Your task to perform on an android device: Open the calendar app, open the side menu, and click the "Day" option Image 0: 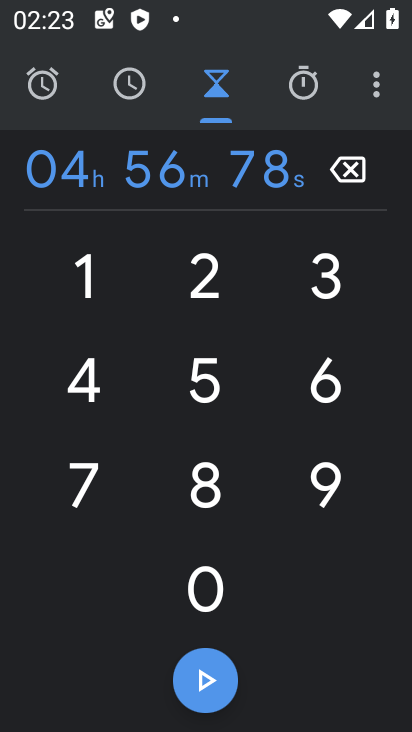
Step 0: press home button
Your task to perform on an android device: Open the calendar app, open the side menu, and click the "Day" option Image 1: 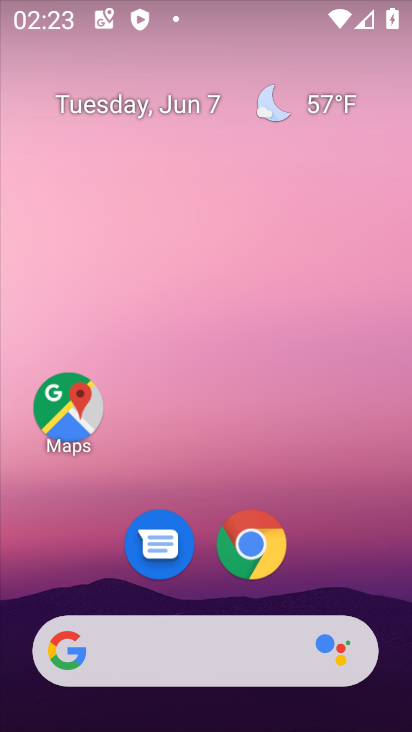
Step 1: drag from (159, 516) to (181, 208)
Your task to perform on an android device: Open the calendar app, open the side menu, and click the "Day" option Image 2: 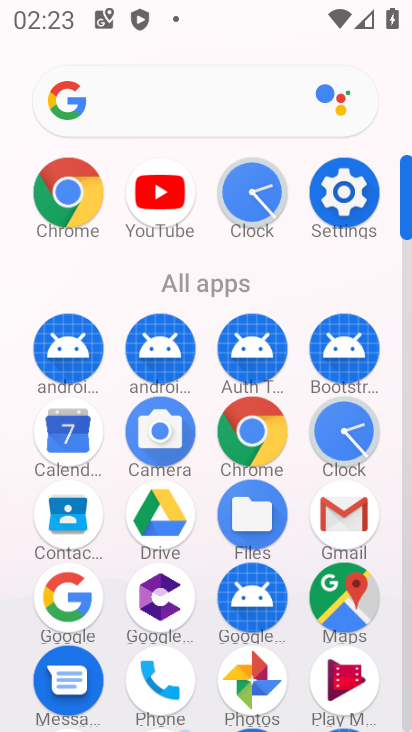
Step 2: click (57, 422)
Your task to perform on an android device: Open the calendar app, open the side menu, and click the "Day" option Image 3: 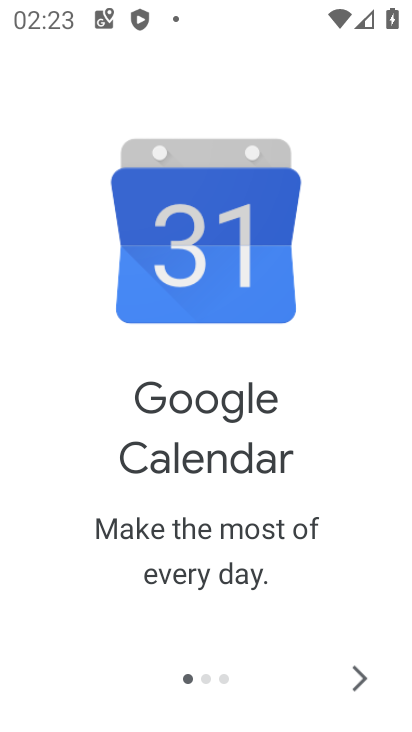
Step 3: click (347, 690)
Your task to perform on an android device: Open the calendar app, open the side menu, and click the "Day" option Image 4: 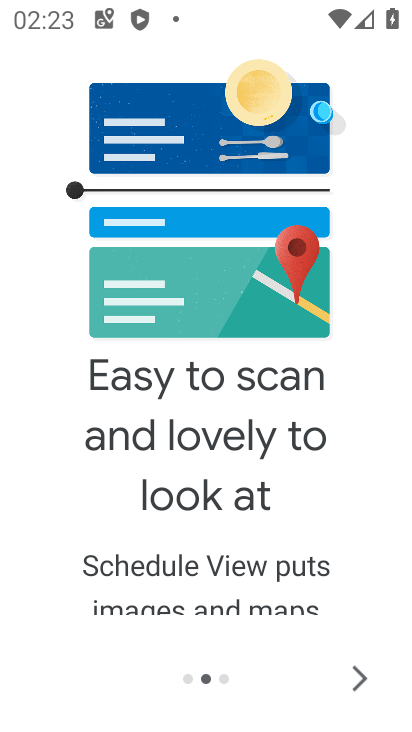
Step 4: click (347, 690)
Your task to perform on an android device: Open the calendar app, open the side menu, and click the "Day" option Image 5: 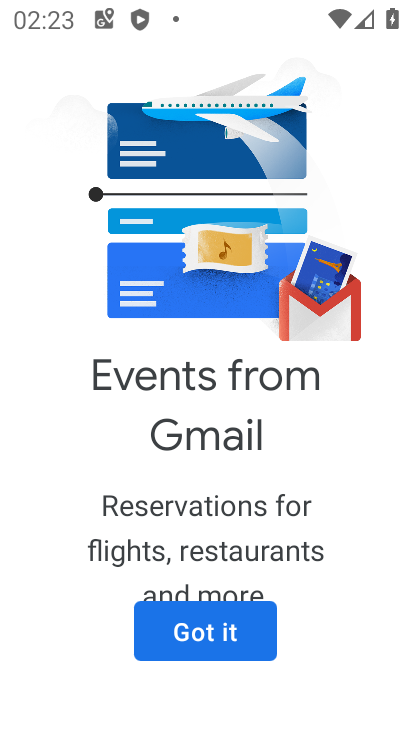
Step 5: click (218, 622)
Your task to perform on an android device: Open the calendar app, open the side menu, and click the "Day" option Image 6: 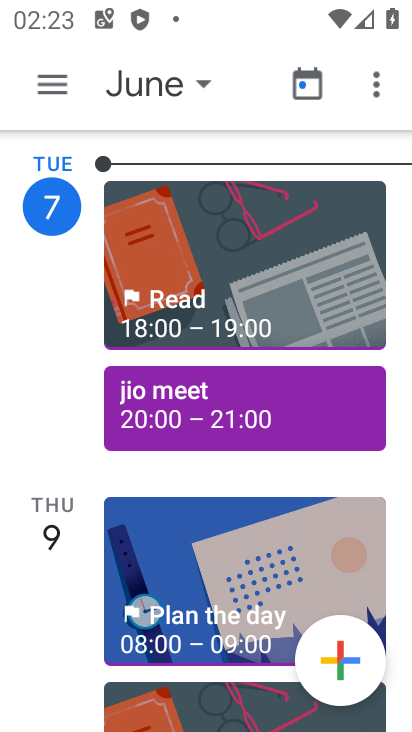
Step 6: click (49, 81)
Your task to perform on an android device: Open the calendar app, open the side menu, and click the "Day" option Image 7: 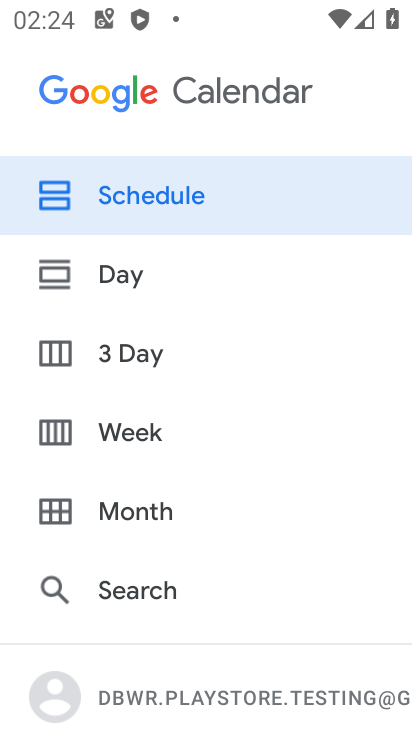
Step 7: click (97, 270)
Your task to perform on an android device: Open the calendar app, open the side menu, and click the "Day" option Image 8: 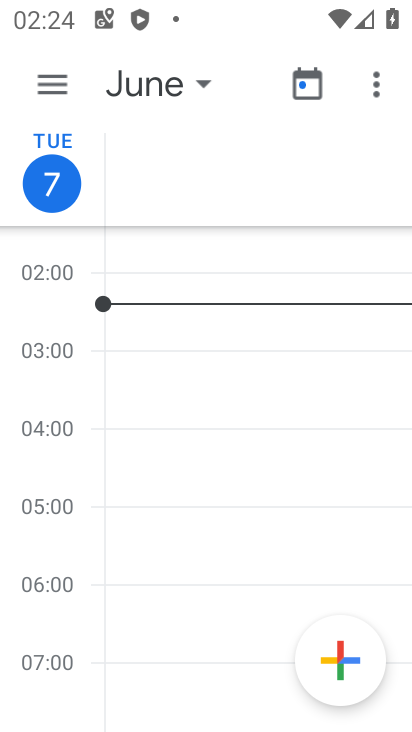
Step 8: task complete